Your task to perform on an android device: Open the phone app and click the voicemail tab. Image 0: 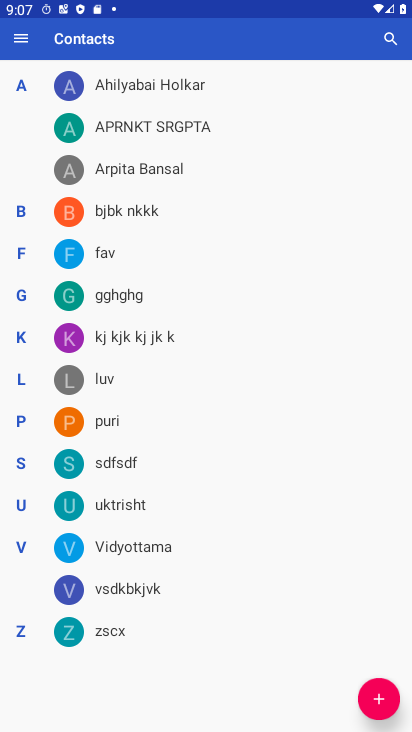
Step 0: press back button
Your task to perform on an android device: Open the phone app and click the voicemail tab. Image 1: 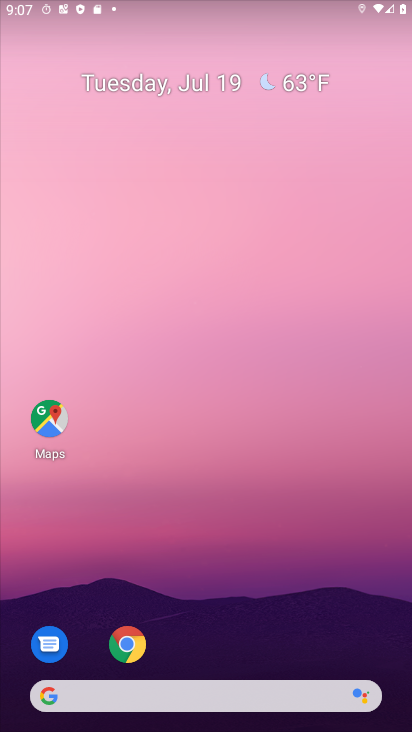
Step 1: drag from (300, 696) to (214, 265)
Your task to perform on an android device: Open the phone app and click the voicemail tab. Image 2: 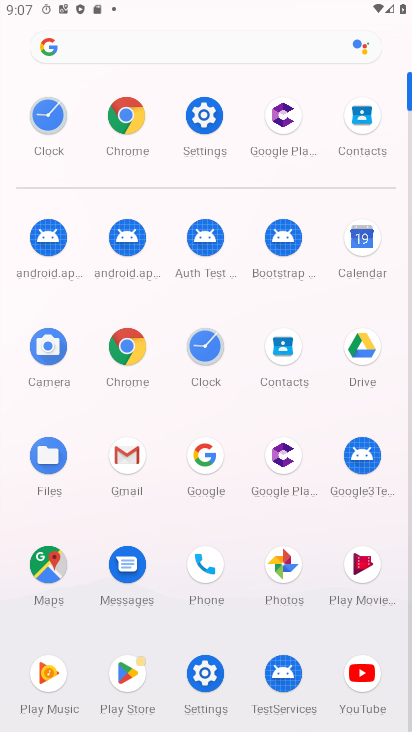
Step 2: click (207, 564)
Your task to perform on an android device: Open the phone app and click the voicemail tab. Image 3: 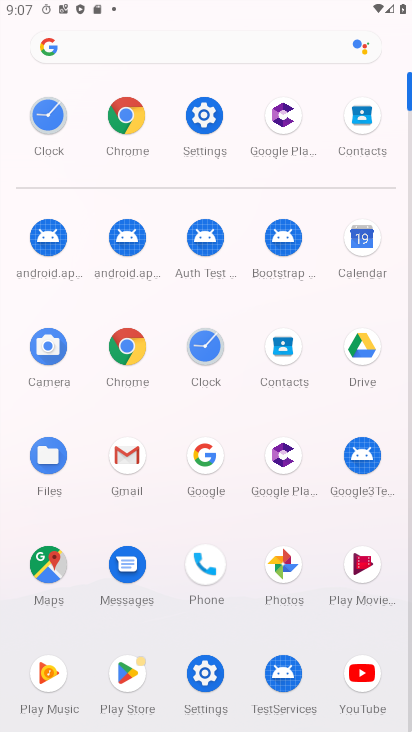
Step 3: click (200, 565)
Your task to perform on an android device: Open the phone app and click the voicemail tab. Image 4: 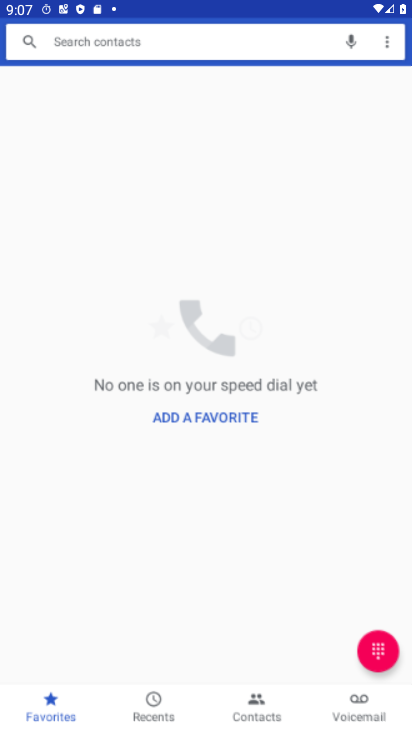
Step 4: click (201, 556)
Your task to perform on an android device: Open the phone app and click the voicemail tab. Image 5: 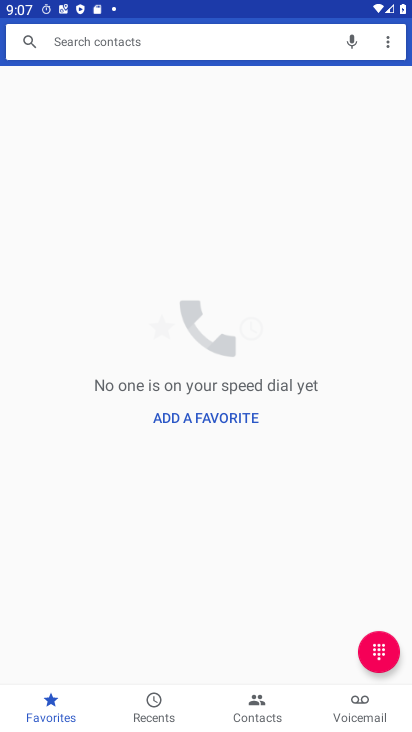
Step 5: click (364, 711)
Your task to perform on an android device: Open the phone app and click the voicemail tab. Image 6: 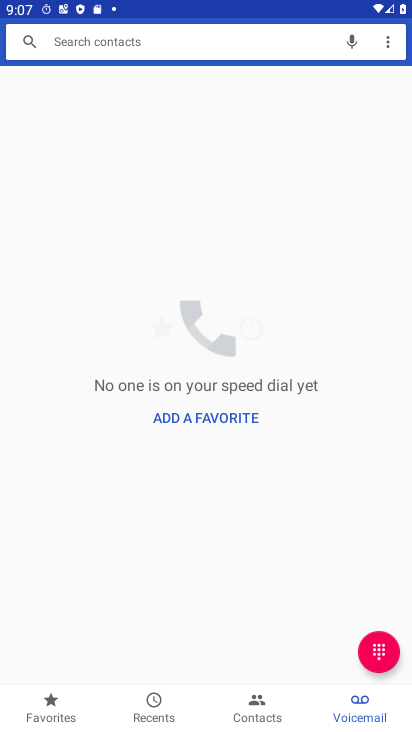
Step 6: click (374, 719)
Your task to perform on an android device: Open the phone app and click the voicemail tab. Image 7: 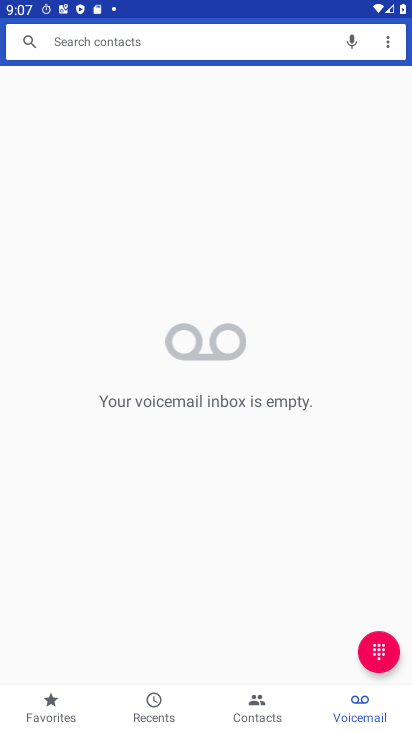
Step 7: task complete